Your task to perform on an android device: What's the weather today? Image 0: 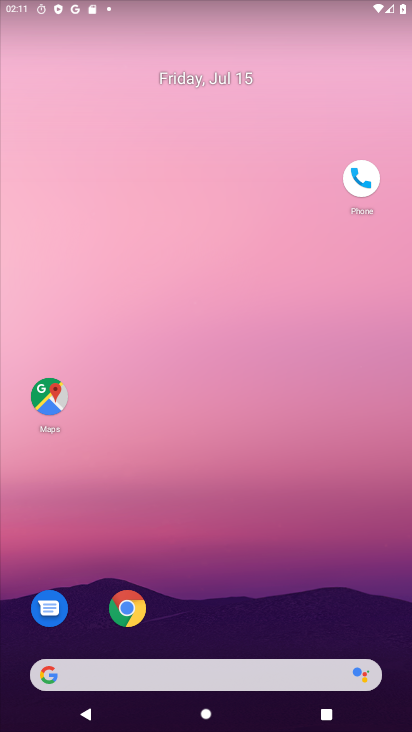
Step 0: drag from (208, 419) to (208, 94)
Your task to perform on an android device: What's the weather today? Image 1: 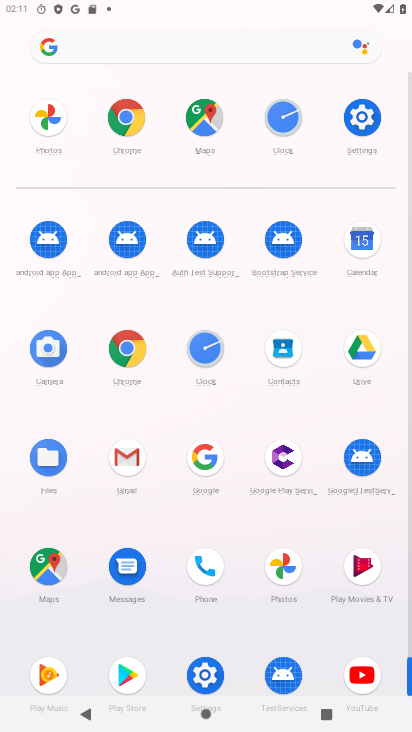
Step 1: click (98, 38)
Your task to perform on an android device: What's the weather today? Image 2: 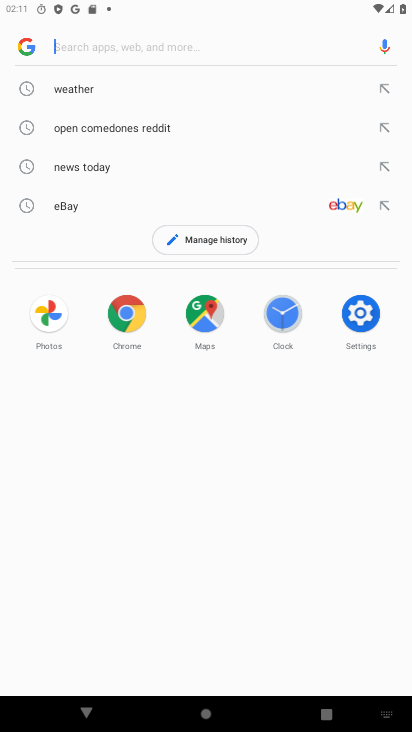
Step 2: type "What's the weather today?"
Your task to perform on an android device: What's the weather today? Image 3: 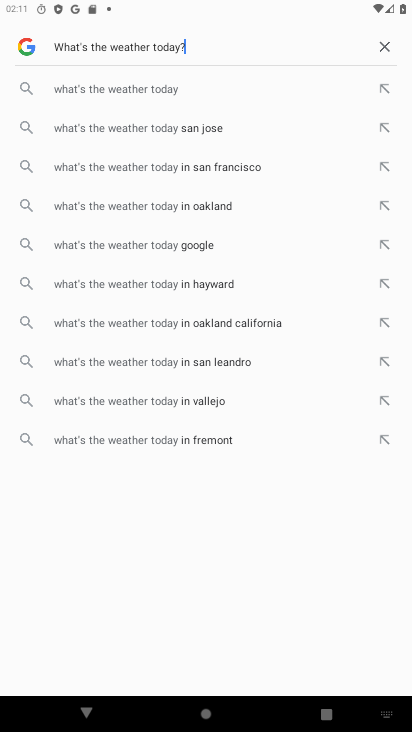
Step 3: type ""
Your task to perform on an android device: What's the weather today? Image 4: 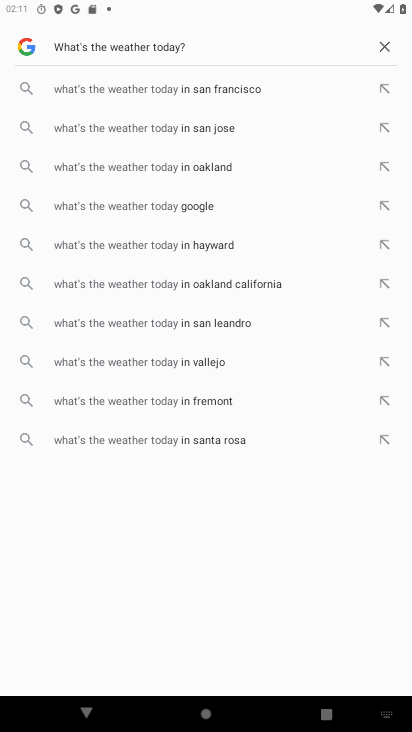
Step 4: click (206, 199)
Your task to perform on an android device: What's the weather today? Image 5: 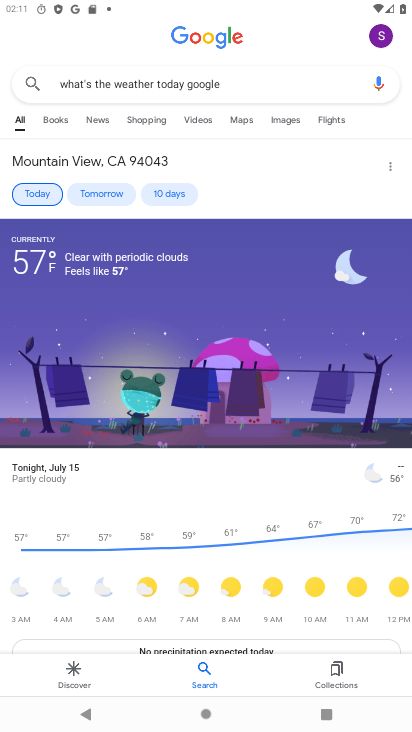
Step 5: task complete